Your task to perform on an android device: See recent photos Image 0: 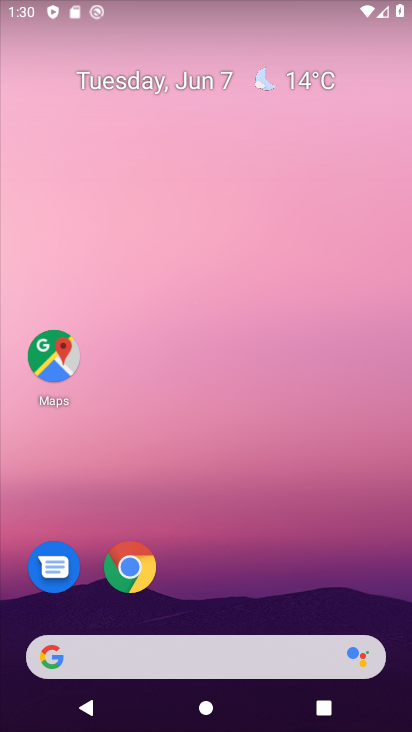
Step 0: drag from (278, 560) to (77, 551)
Your task to perform on an android device: See recent photos Image 1: 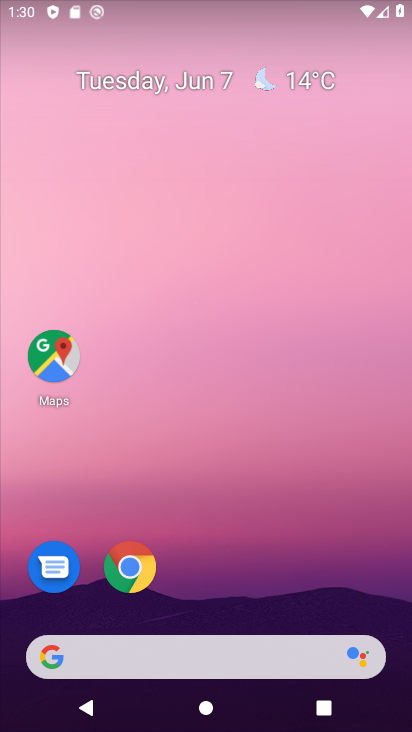
Step 1: drag from (286, 505) to (243, 0)
Your task to perform on an android device: See recent photos Image 2: 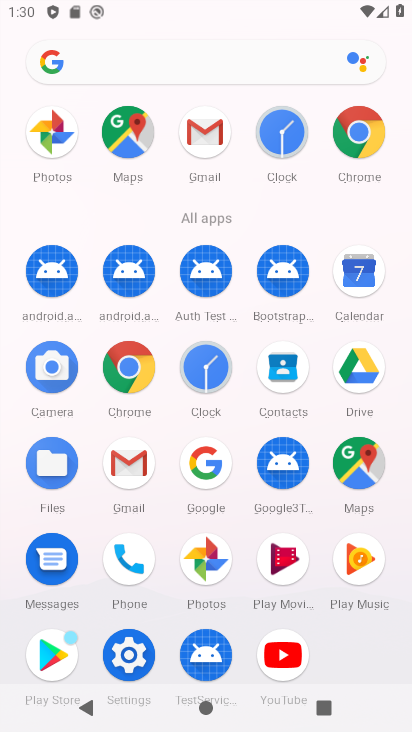
Step 2: click (206, 556)
Your task to perform on an android device: See recent photos Image 3: 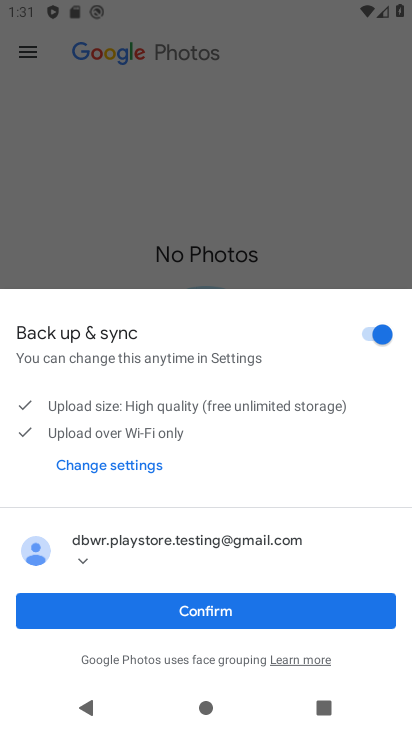
Step 3: click (217, 604)
Your task to perform on an android device: See recent photos Image 4: 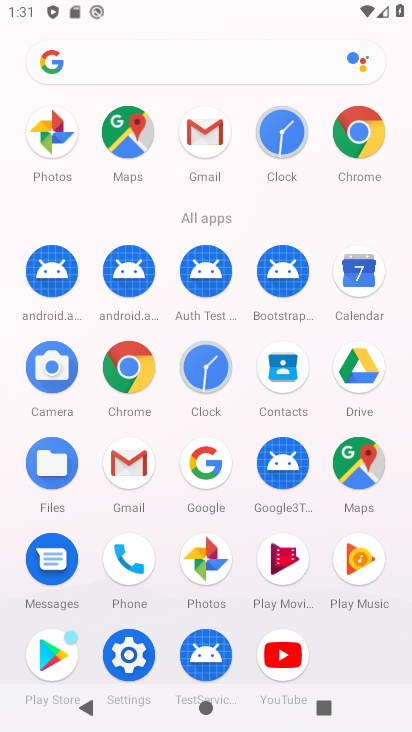
Step 4: click (215, 558)
Your task to perform on an android device: See recent photos Image 5: 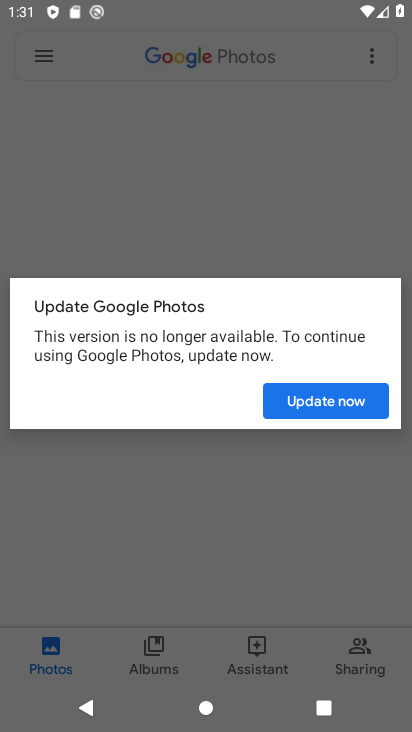
Step 5: click (341, 394)
Your task to perform on an android device: See recent photos Image 6: 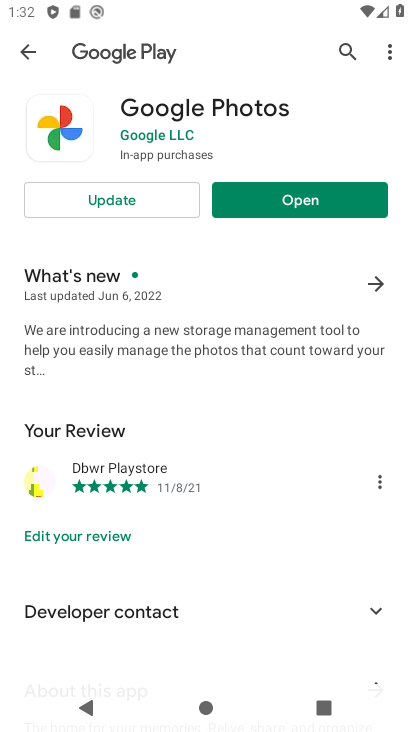
Step 6: click (128, 214)
Your task to perform on an android device: See recent photos Image 7: 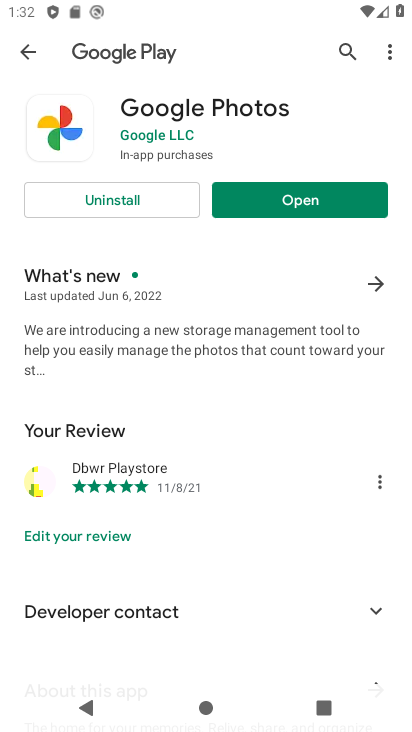
Step 7: click (286, 195)
Your task to perform on an android device: See recent photos Image 8: 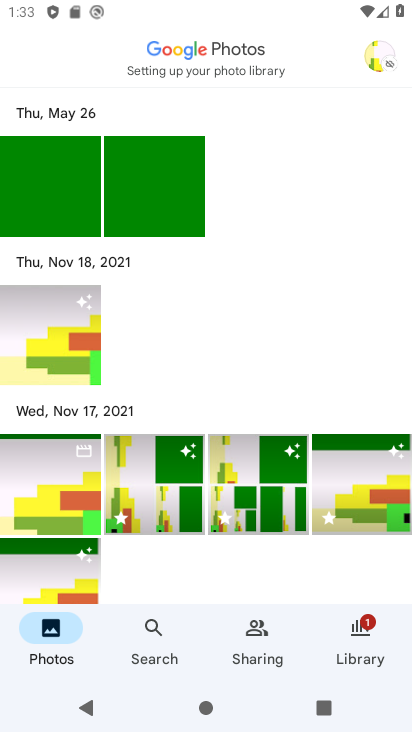
Step 8: task complete